Your task to perform on an android device: When is my next appointment? Image 0: 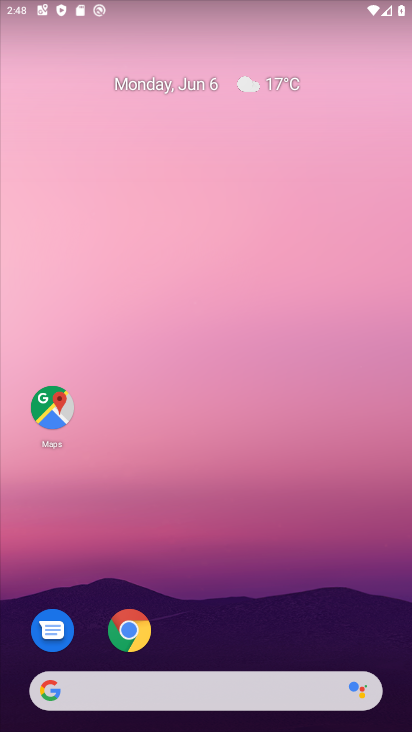
Step 0: drag from (215, 669) to (272, 182)
Your task to perform on an android device: When is my next appointment? Image 1: 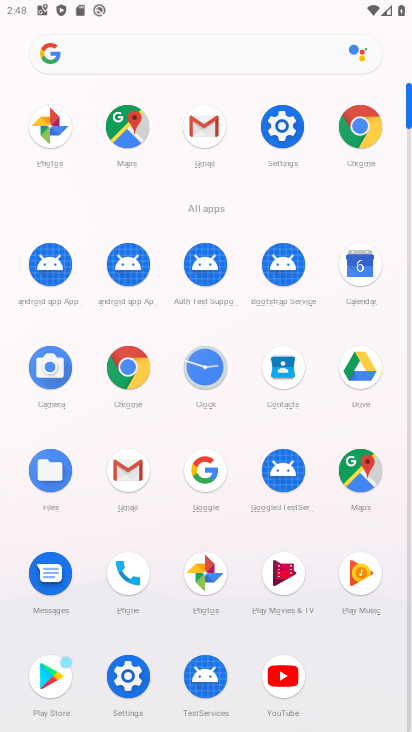
Step 1: click (360, 265)
Your task to perform on an android device: When is my next appointment? Image 2: 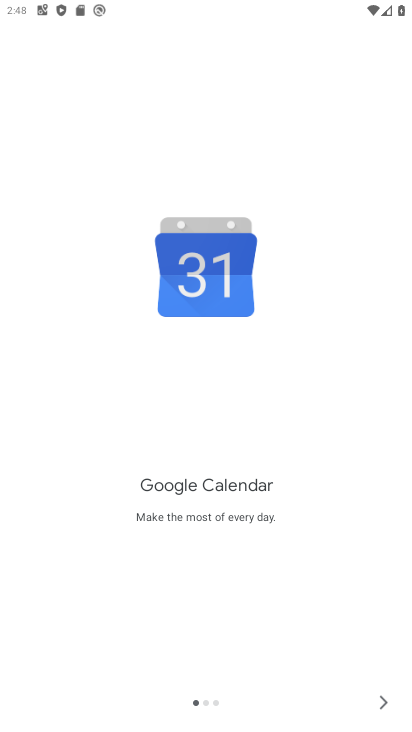
Step 2: click (384, 700)
Your task to perform on an android device: When is my next appointment? Image 3: 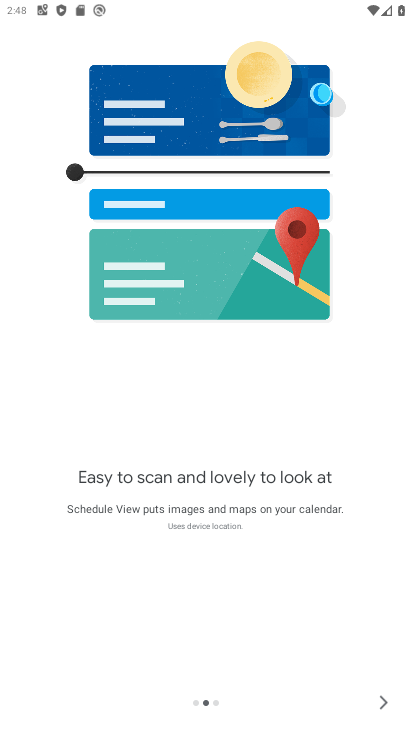
Step 3: click (373, 697)
Your task to perform on an android device: When is my next appointment? Image 4: 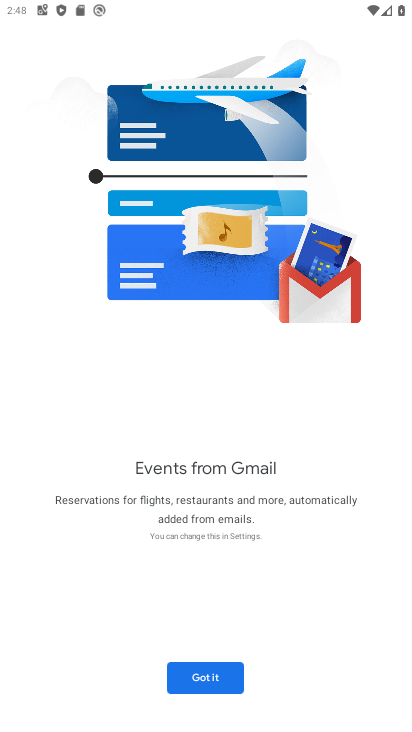
Step 4: click (373, 697)
Your task to perform on an android device: When is my next appointment? Image 5: 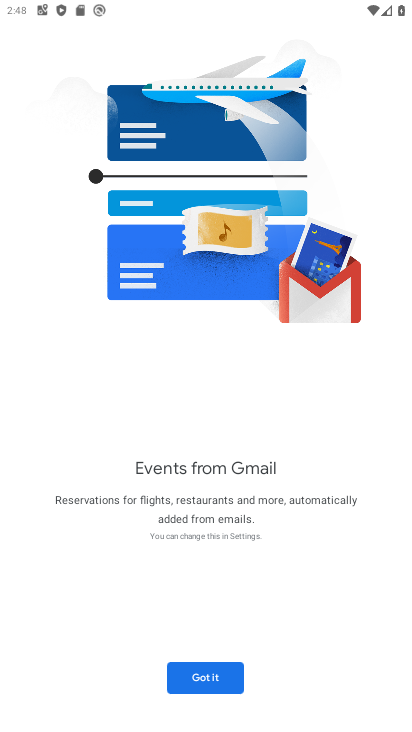
Step 5: click (185, 681)
Your task to perform on an android device: When is my next appointment? Image 6: 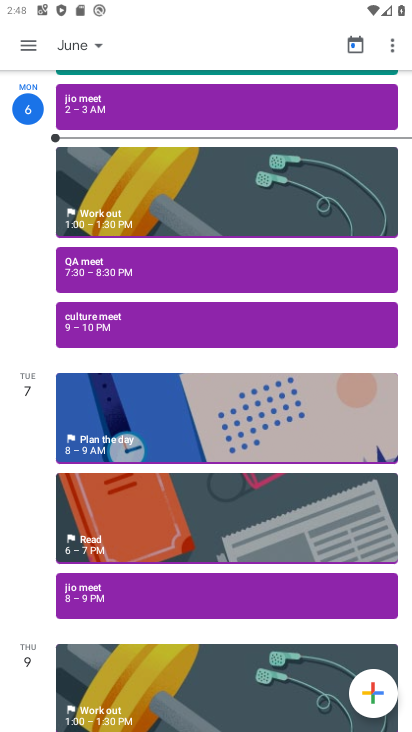
Step 6: click (83, 589)
Your task to perform on an android device: When is my next appointment? Image 7: 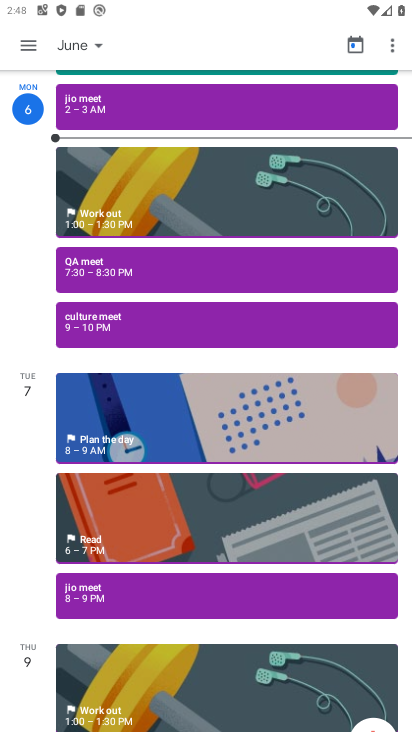
Step 7: task complete